Your task to perform on an android device: What's the weather? Image 0: 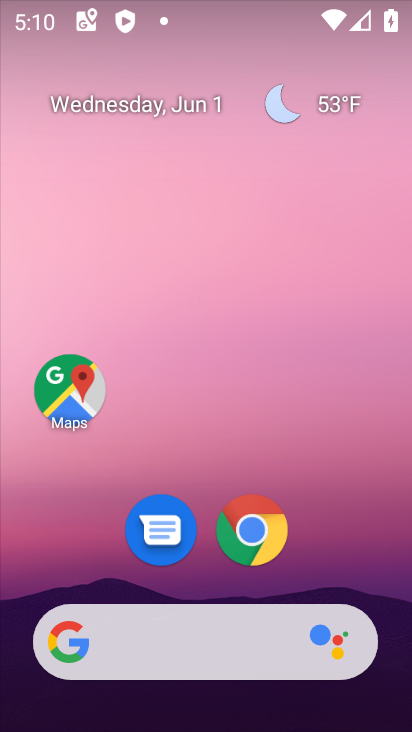
Step 0: click (138, 659)
Your task to perform on an android device: What's the weather? Image 1: 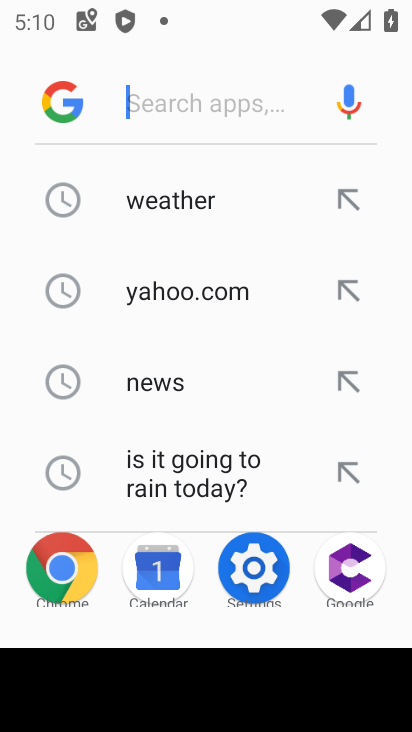
Step 1: click (169, 213)
Your task to perform on an android device: What's the weather? Image 2: 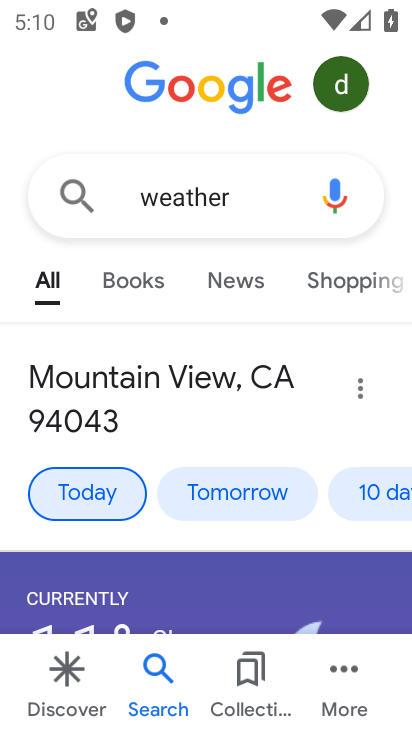
Step 2: task complete